Your task to perform on an android device: install app "Google Play Music" Image 0: 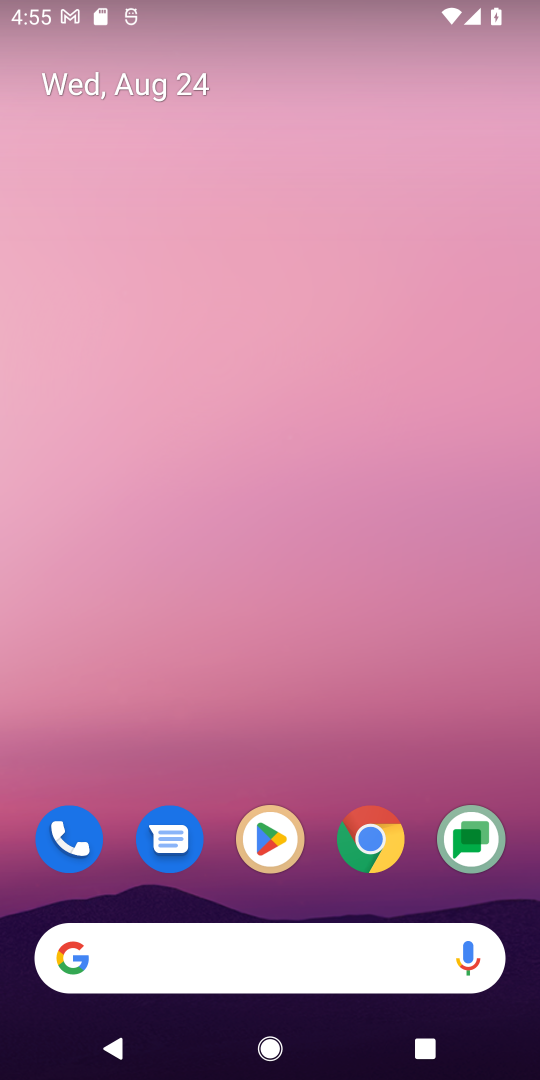
Step 0: click (273, 851)
Your task to perform on an android device: install app "Google Play Music" Image 1: 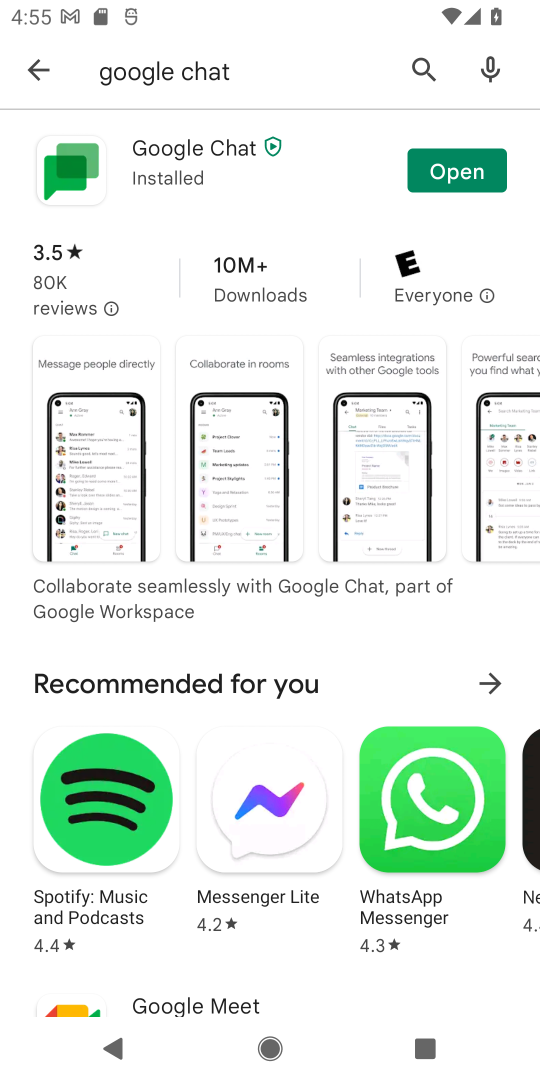
Step 1: click (417, 65)
Your task to perform on an android device: install app "Google Play Music" Image 2: 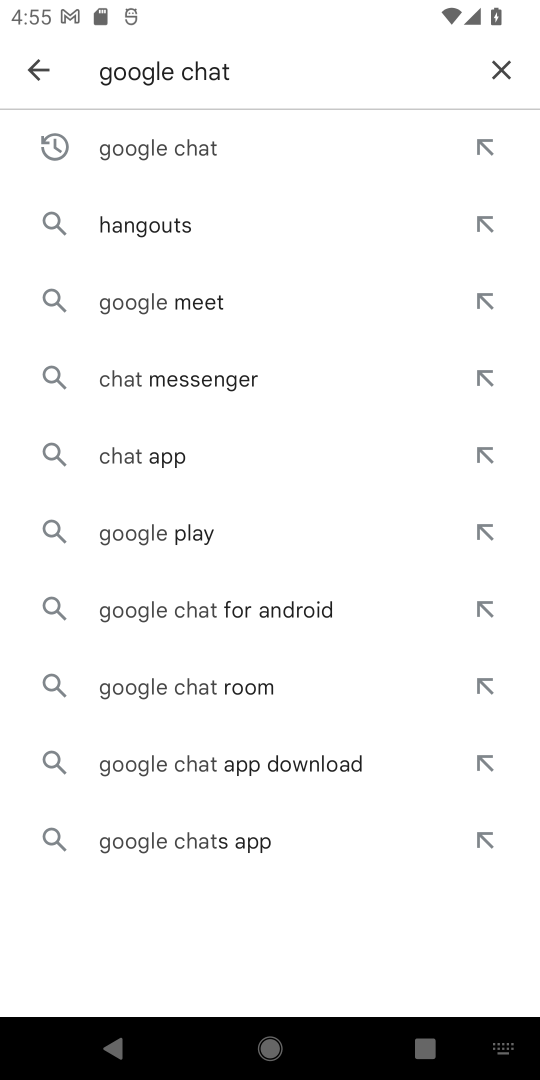
Step 2: click (502, 73)
Your task to perform on an android device: install app "Google Play Music" Image 3: 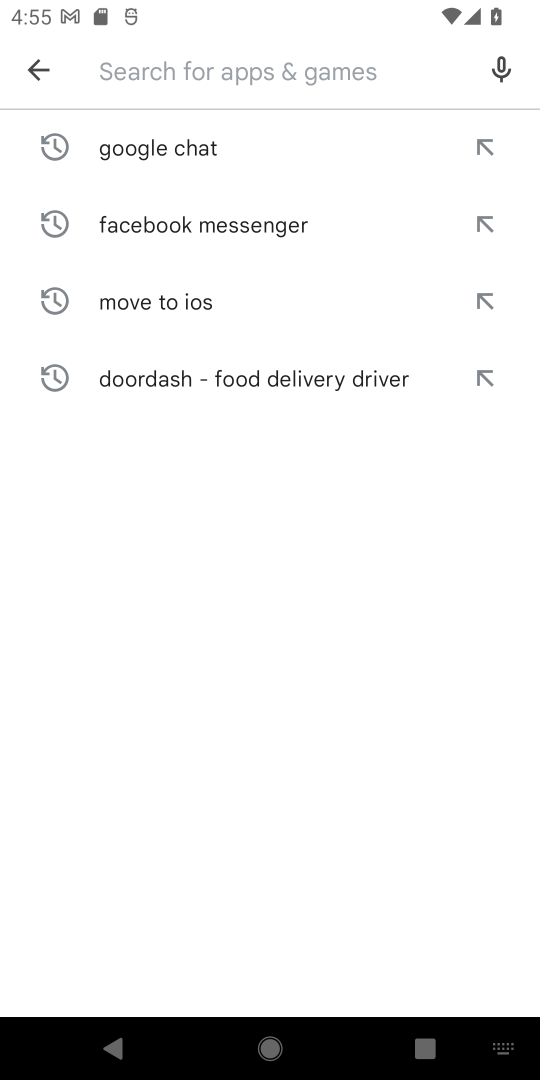
Step 3: type "Google Play Music"
Your task to perform on an android device: install app "Google Play Music" Image 4: 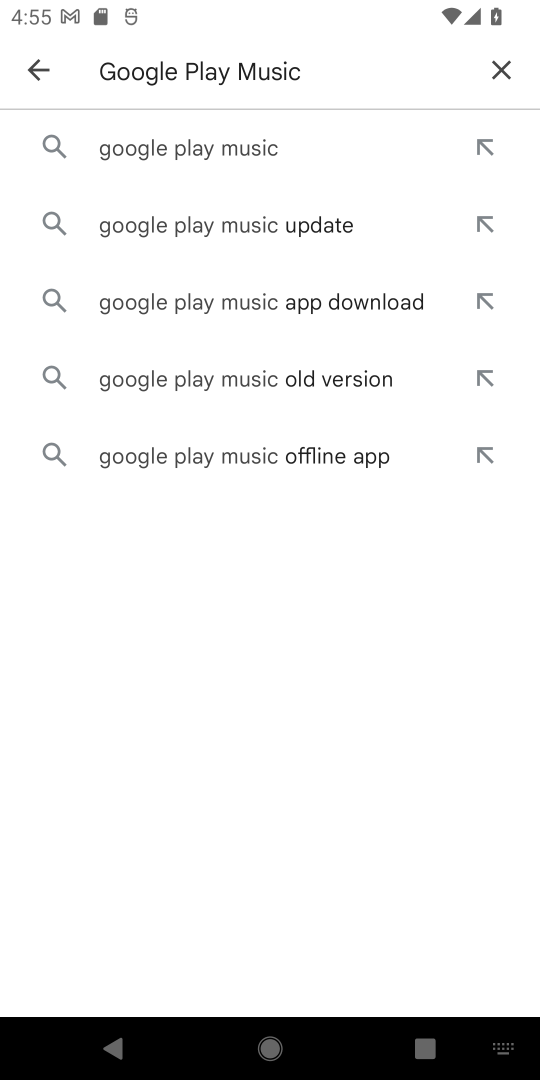
Step 4: click (206, 152)
Your task to perform on an android device: install app "Google Play Music" Image 5: 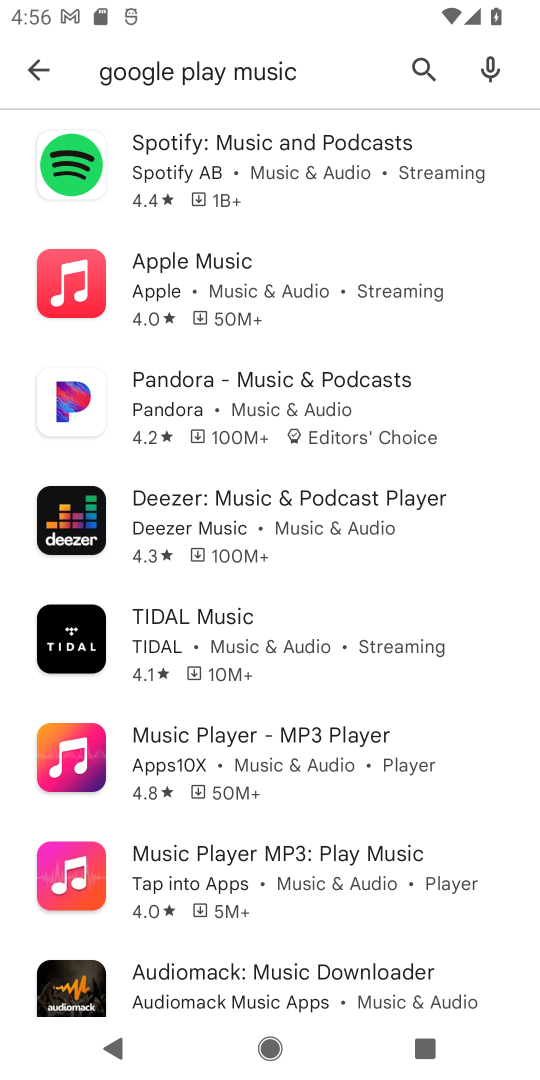
Step 5: click (207, 154)
Your task to perform on an android device: install app "Google Play Music" Image 6: 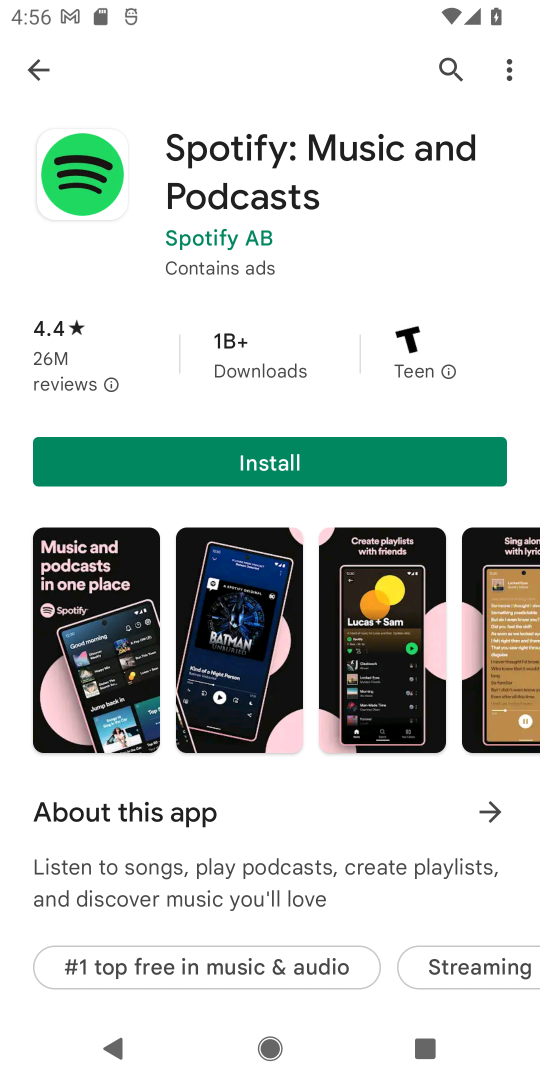
Step 6: click (261, 467)
Your task to perform on an android device: install app "Google Play Music" Image 7: 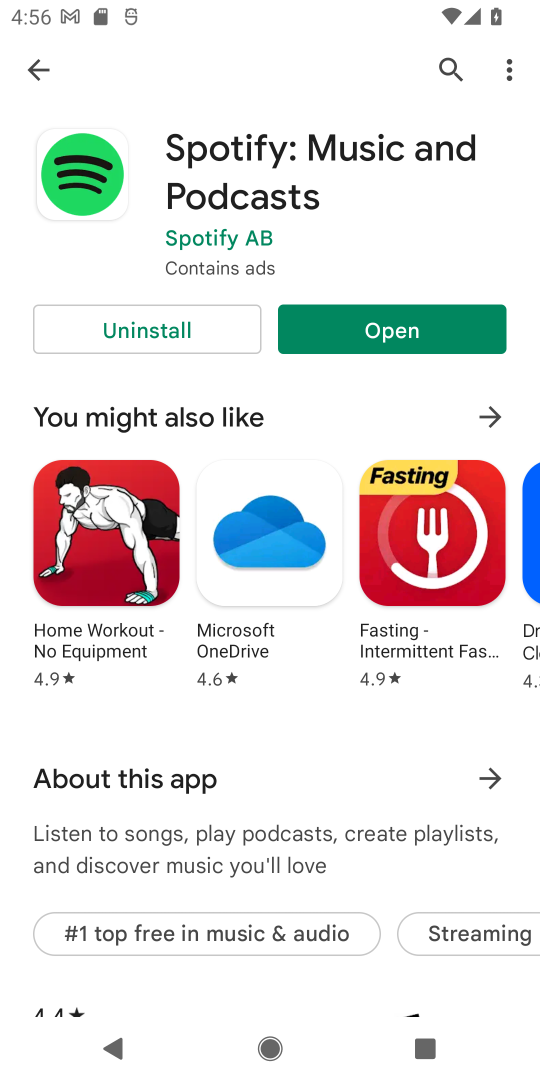
Step 7: task complete